Your task to perform on an android device: move an email to a new category in the gmail app Image 0: 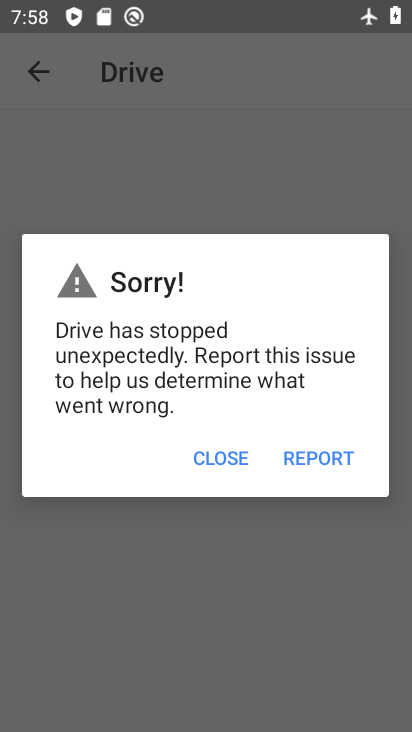
Step 0: press home button
Your task to perform on an android device: move an email to a new category in the gmail app Image 1: 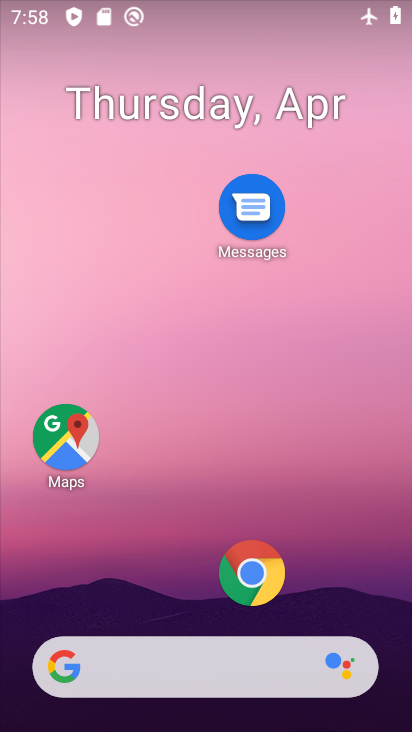
Step 1: drag from (197, 606) to (190, 126)
Your task to perform on an android device: move an email to a new category in the gmail app Image 2: 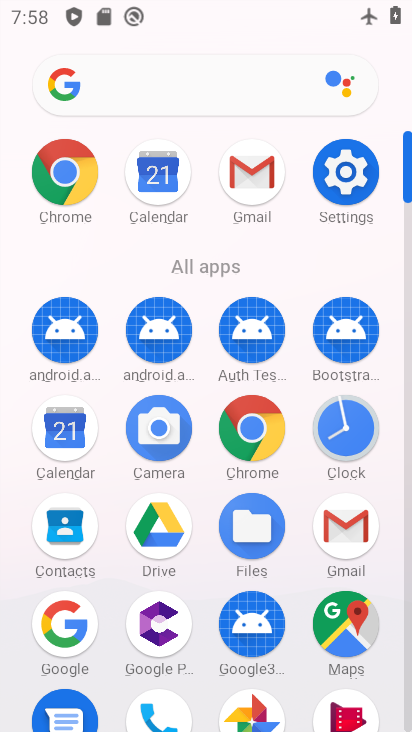
Step 2: click (248, 163)
Your task to perform on an android device: move an email to a new category in the gmail app Image 3: 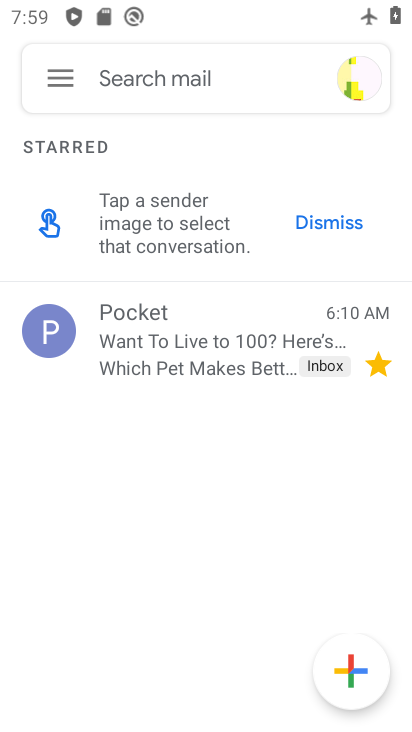
Step 3: click (61, 72)
Your task to perform on an android device: move an email to a new category in the gmail app Image 4: 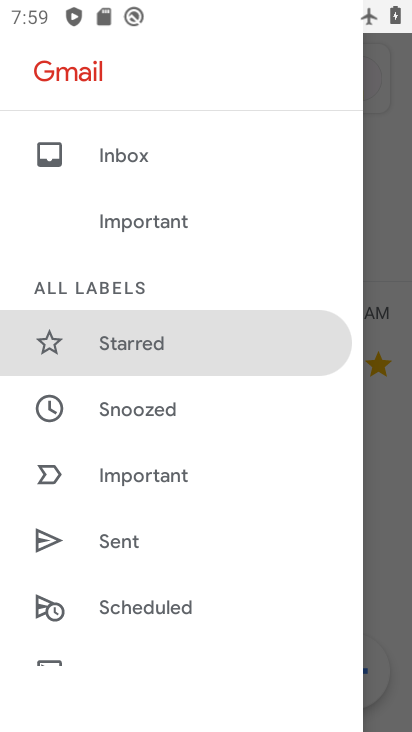
Step 4: drag from (183, 605) to (210, 203)
Your task to perform on an android device: move an email to a new category in the gmail app Image 5: 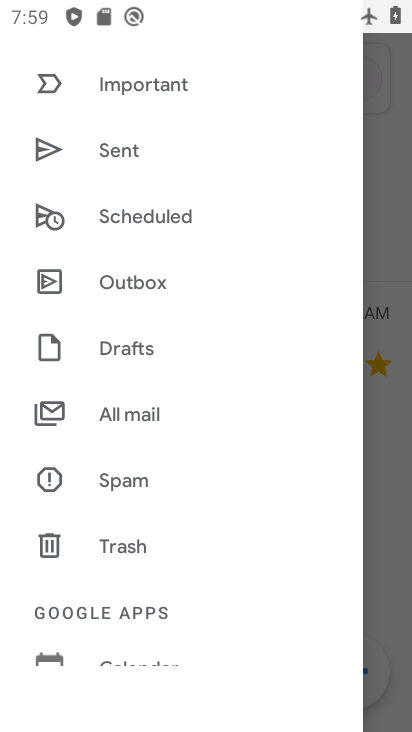
Step 5: click (151, 406)
Your task to perform on an android device: move an email to a new category in the gmail app Image 6: 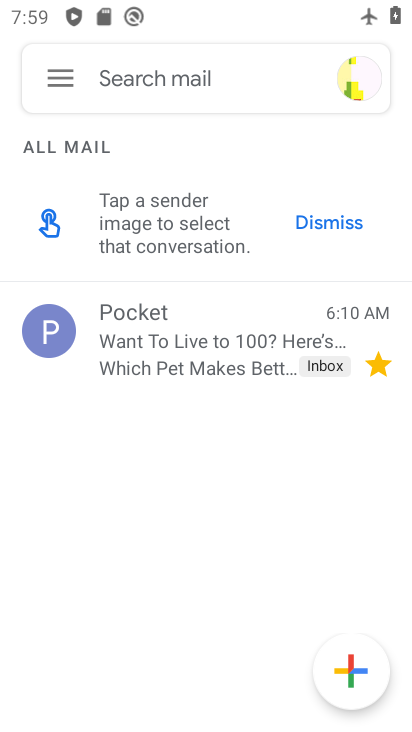
Step 6: click (53, 321)
Your task to perform on an android device: move an email to a new category in the gmail app Image 7: 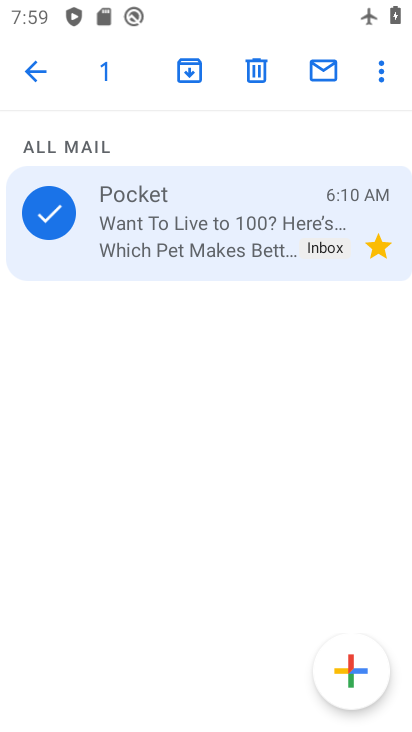
Step 7: click (377, 62)
Your task to perform on an android device: move an email to a new category in the gmail app Image 8: 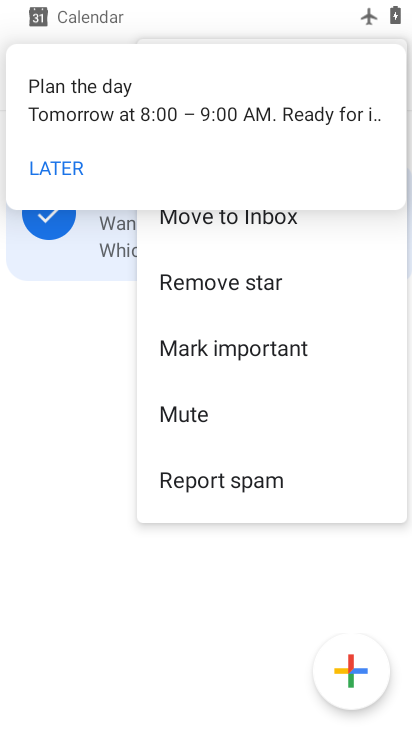
Step 8: click (50, 170)
Your task to perform on an android device: move an email to a new category in the gmail app Image 9: 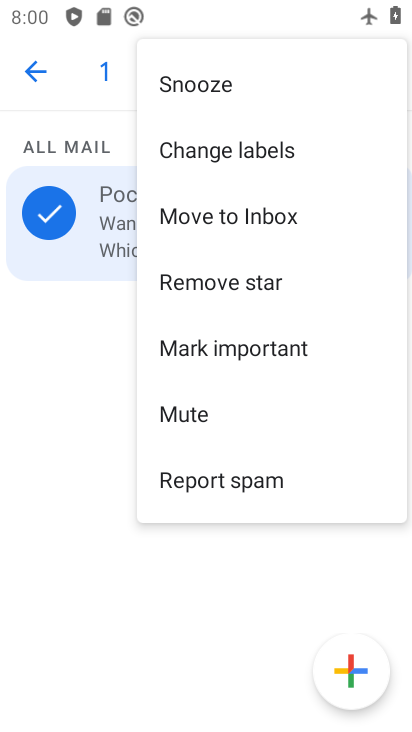
Step 9: click (243, 214)
Your task to perform on an android device: move an email to a new category in the gmail app Image 10: 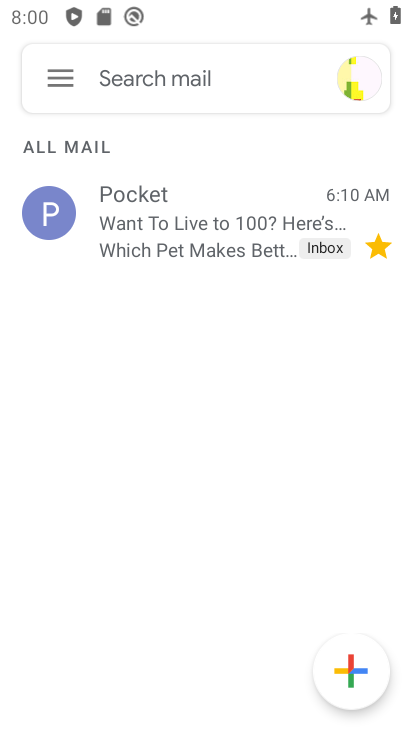
Step 10: task complete